Your task to perform on an android device: Open my contact list Image 0: 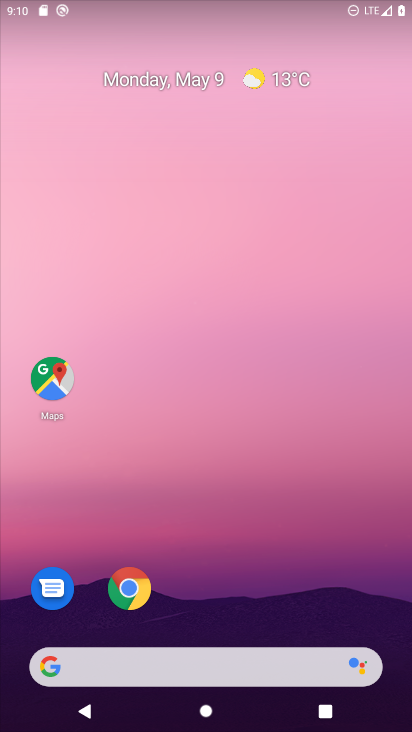
Step 0: drag from (218, 593) to (284, 68)
Your task to perform on an android device: Open my contact list Image 1: 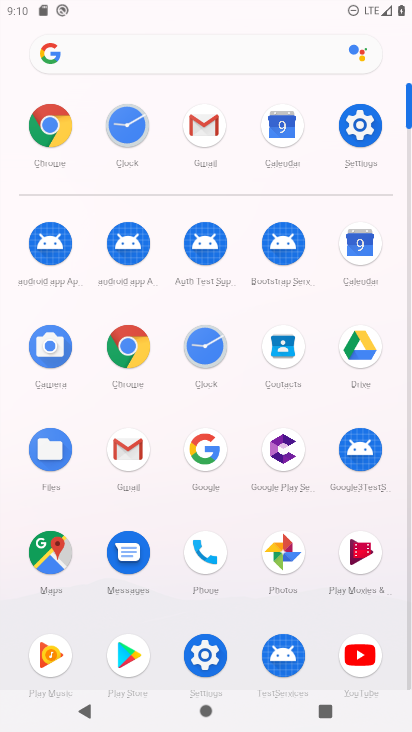
Step 1: click (292, 364)
Your task to perform on an android device: Open my contact list Image 2: 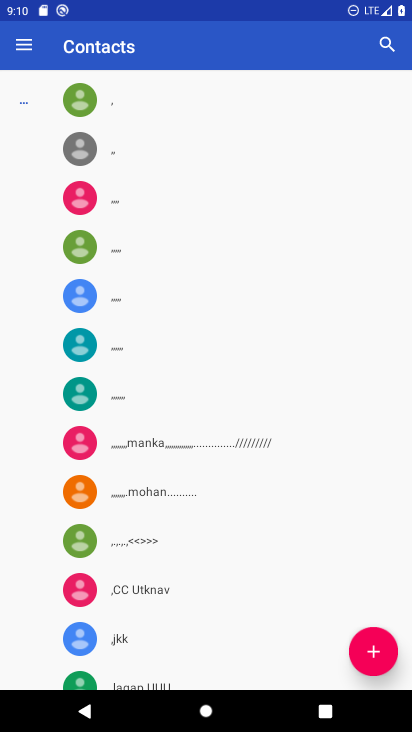
Step 2: task complete